Your task to perform on an android device: add a contact Image 0: 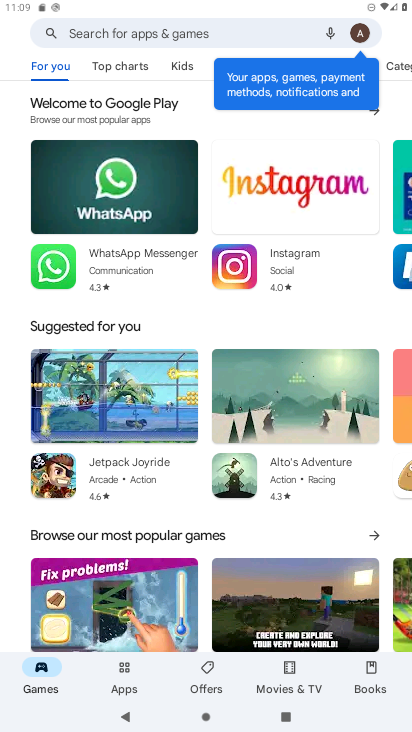
Step 0: press home button
Your task to perform on an android device: add a contact Image 1: 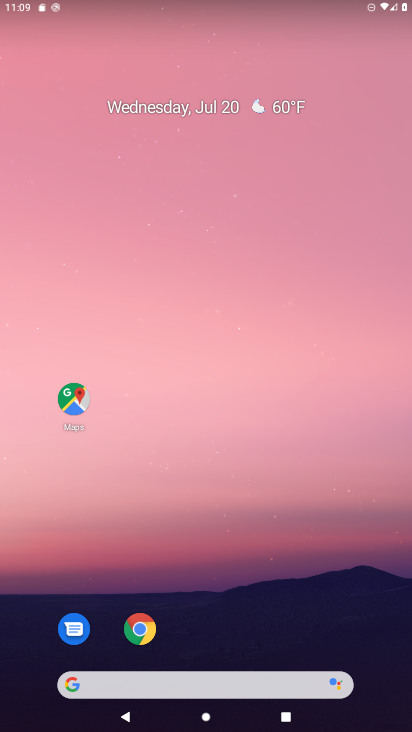
Step 1: drag from (214, 635) to (209, 131)
Your task to perform on an android device: add a contact Image 2: 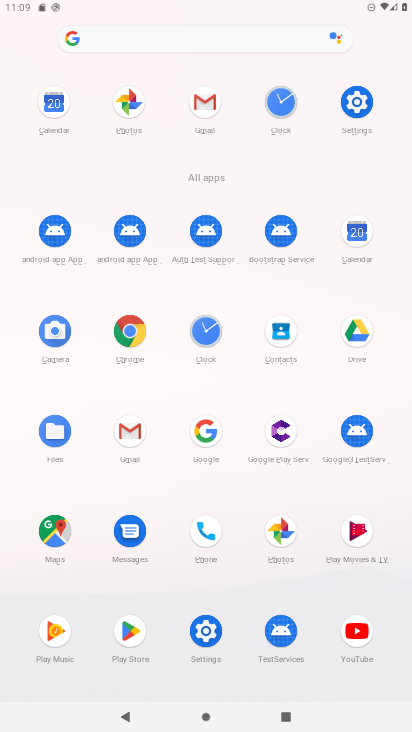
Step 2: click (283, 356)
Your task to perform on an android device: add a contact Image 3: 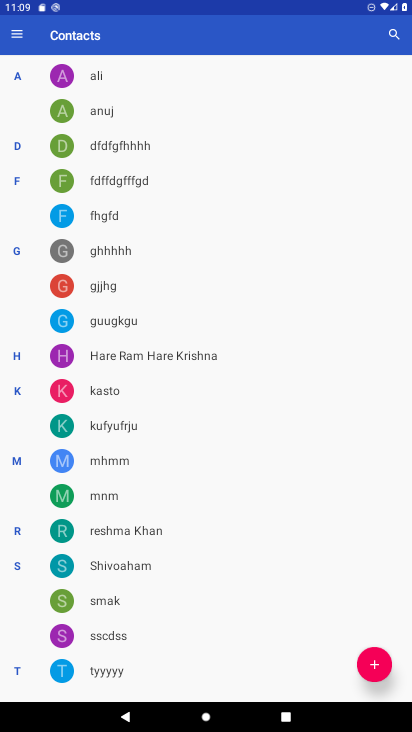
Step 3: click (373, 659)
Your task to perform on an android device: add a contact Image 4: 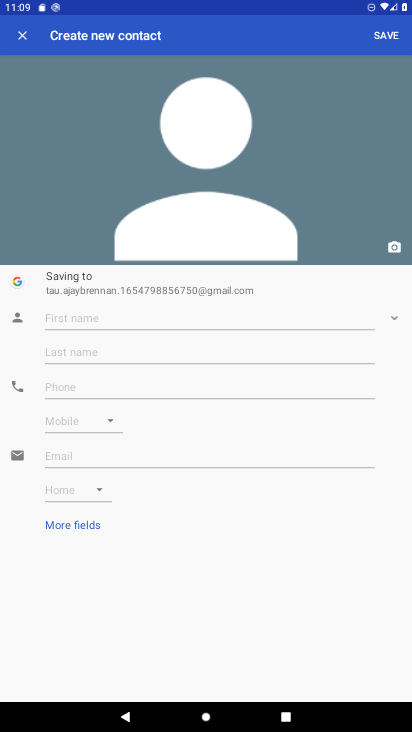
Step 4: type "ghchv"
Your task to perform on an android device: add a contact Image 5: 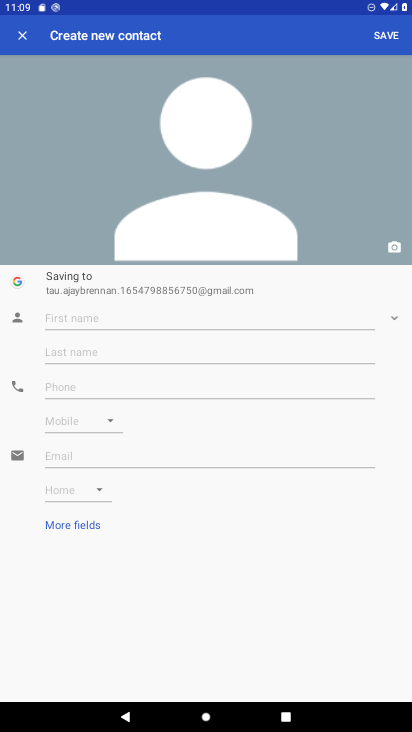
Step 5: click (104, 323)
Your task to perform on an android device: add a contact Image 6: 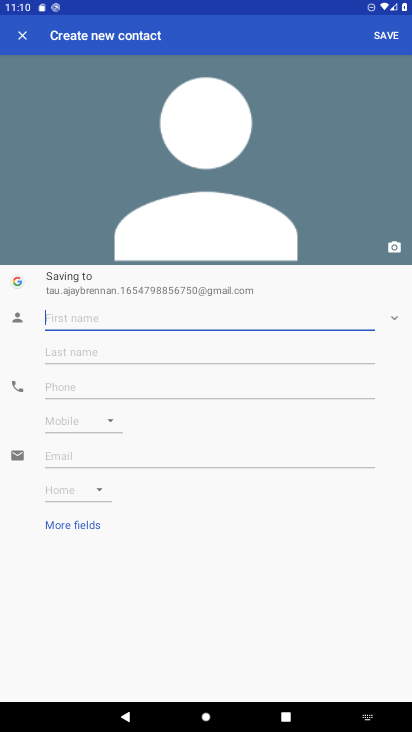
Step 6: type "vhjvj"
Your task to perform on an android device: add a contact Image 7: 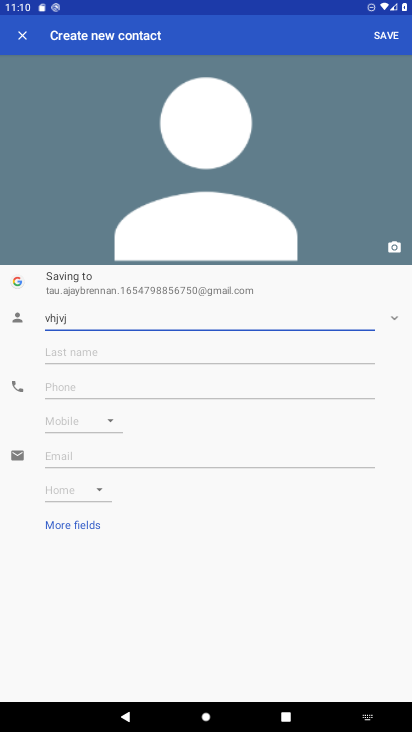
Step 7: click (86, 395)
Your task to perform on an android device: add a contact Image 8: 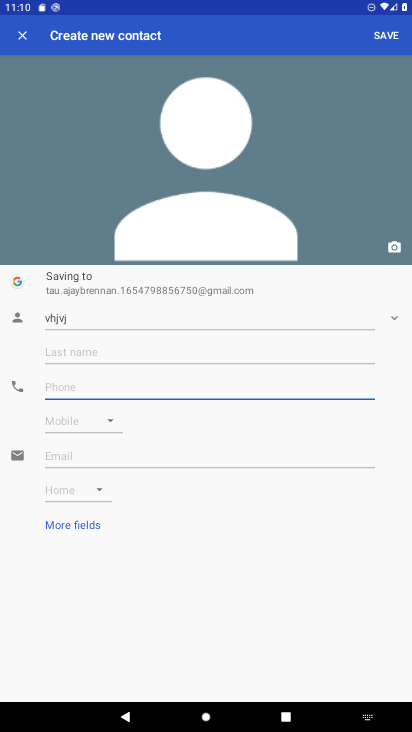
Step 8: type "875676456"
Your task to perform on an android device: add a contact Image 9: 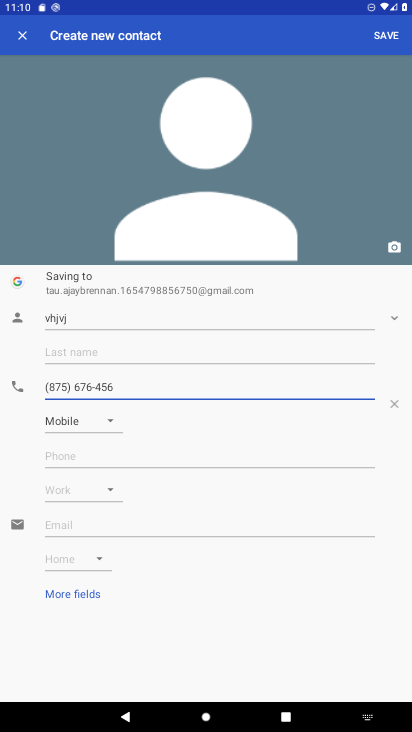
Step 9: click (385, 38)
Your task to perform on an android device: add a contact Image 10: 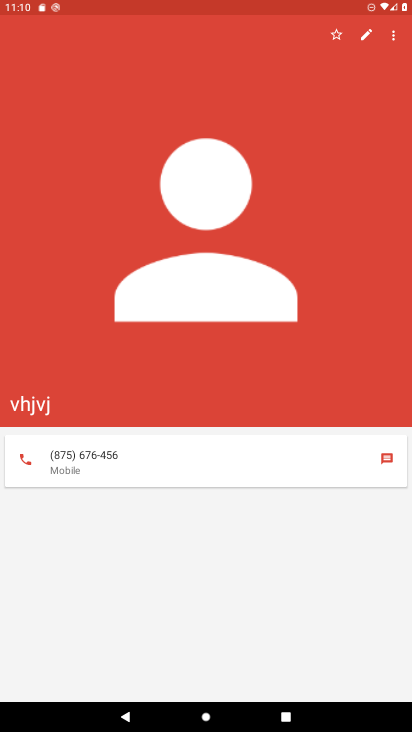
Step 10: task complete